Your task to perform on an android device: Go to battery settings Image 0: 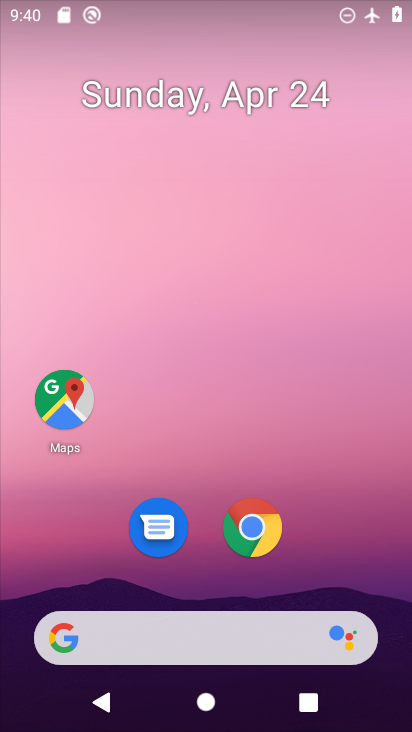
Step 0: drag from (392, 603) to (265, 45)
Your task to perform on an android device: Go to battery settings Image 1: 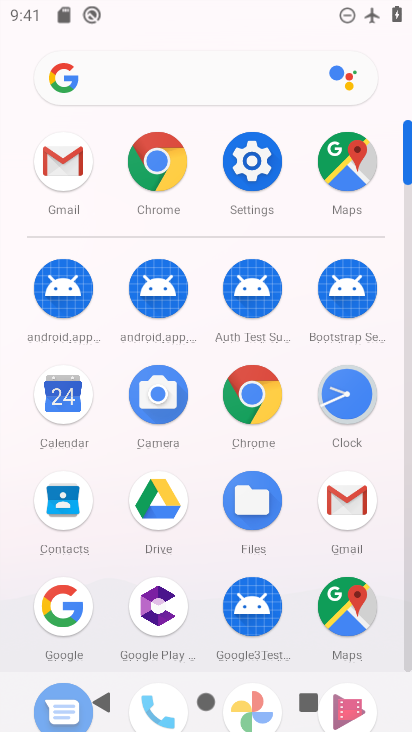
Step 1: click (251, 138)
Your task to perform on an android device: Go to battery settings Image 2: 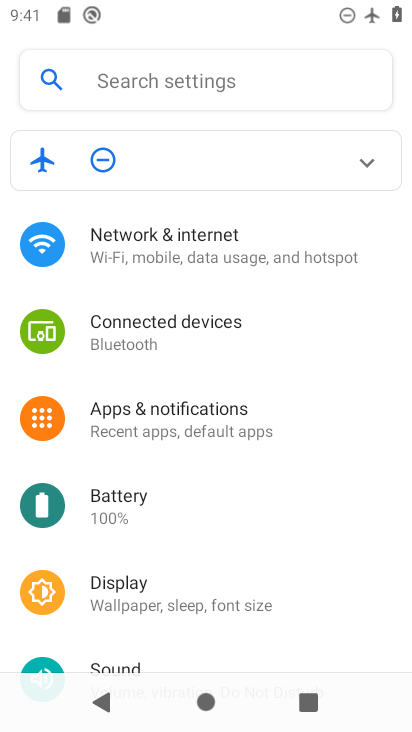
Step 2: click (183, 516)
Your task to perform on an android device: Go to battery settings Image 3: 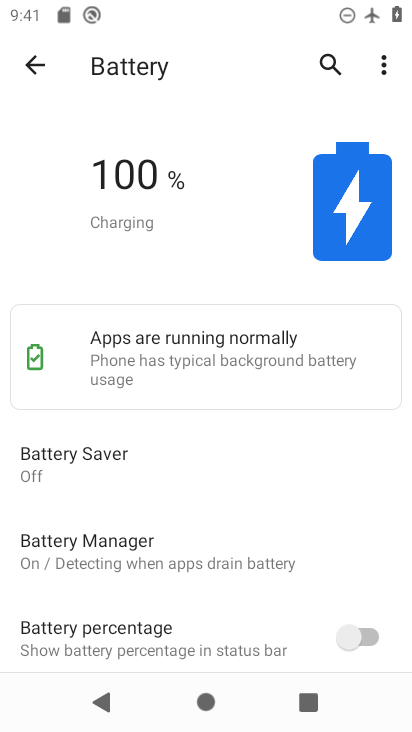
Step 3: task complete